Your task to perform on an android device: Open Yahoo.com Image 0: 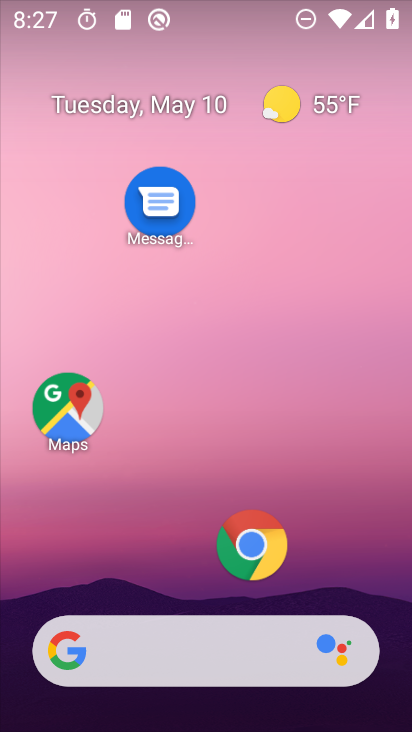
Step 0: click (231, 539)
Your task to perform on an android device: Open Yahoo.com Image 1: 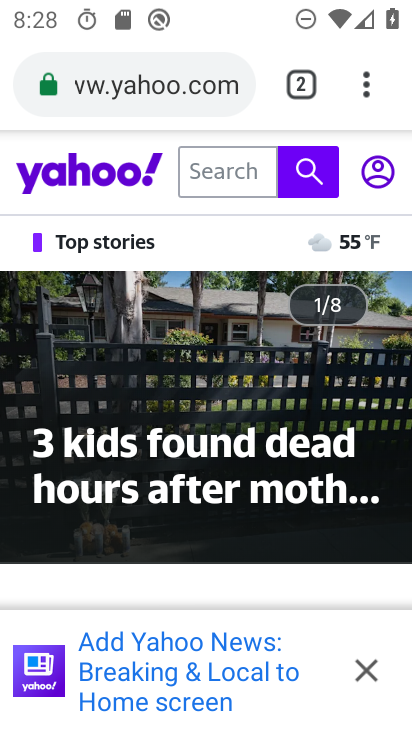
Step 1: task complete